Your task to perform on an android device: Go to ESPN.com Image 0: 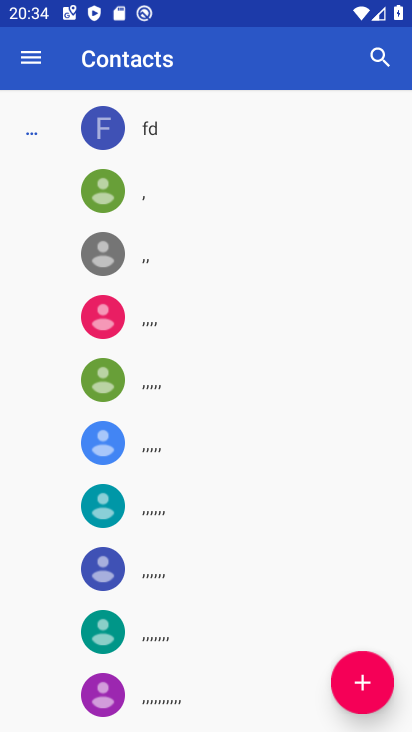
Step 0: press home button
Your task to perform on an android device: Go to ESPN.com Image 1: 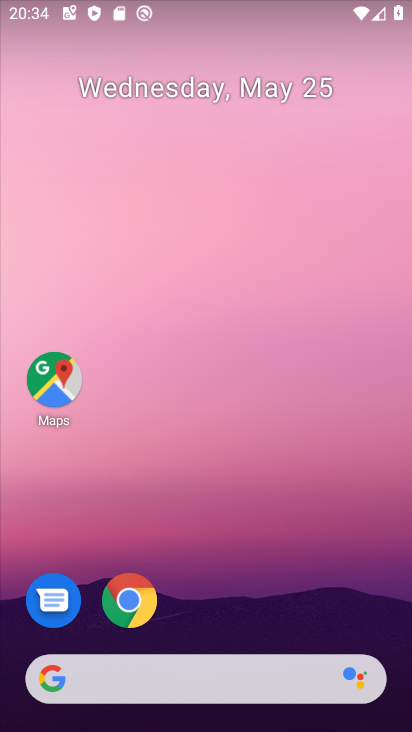
Step 1: drag from (336, 560) to (305, 202)
Your task to perform on an android device: Go to ESPN.com Image 2: 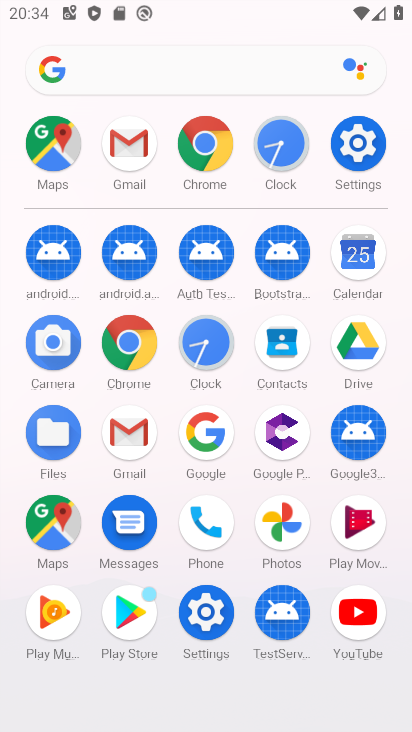
Step 2: click (208, 207)
Your task to perform on an android device: Go to ESPN.com Image 3: 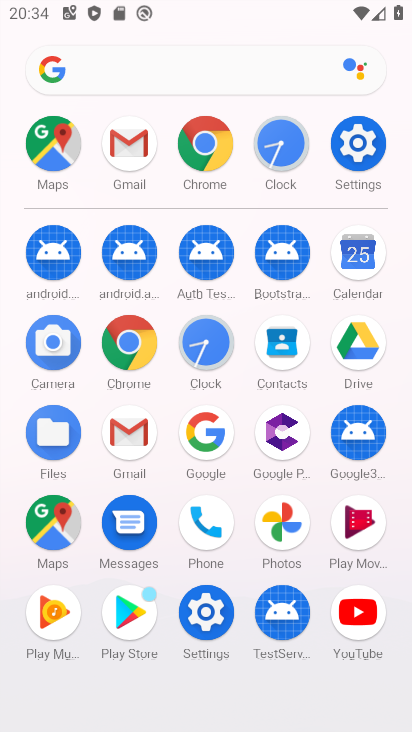
Step 3: click (208, 181)
Your task to perform on an android device: Go to ESPN.com Image 4: 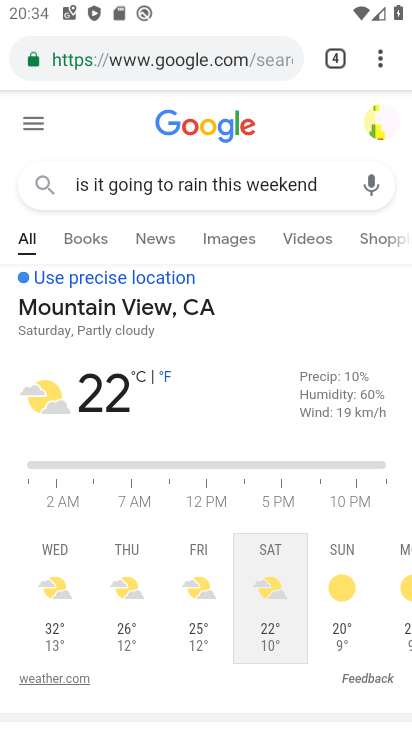
Step 4: click (179, 64)
Your task to perform on an android device: Go to ESPN.com Image 5: 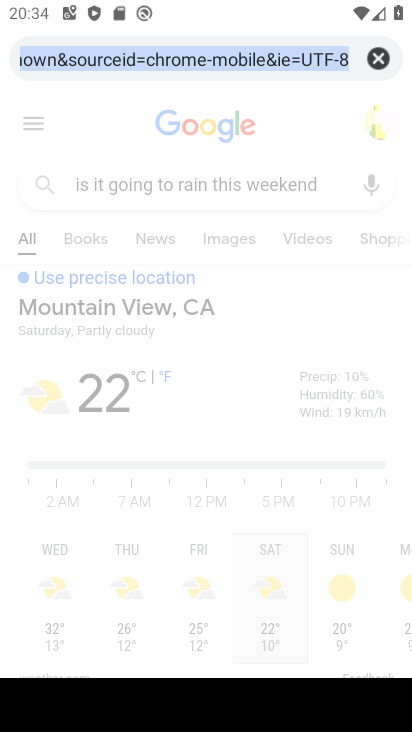
Step 5: click (382, 61)
Your task to perform on an android device: Go to ESPN.com Image 6: 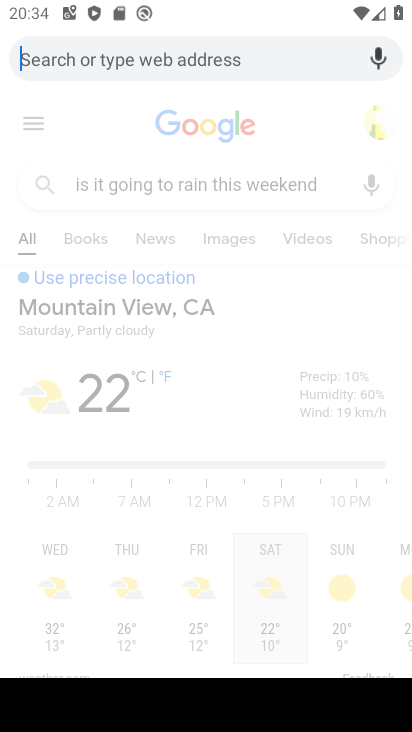
Step 6: type "espn.com"
Your task to perform on an android device: Go to ESPN.com Image 7: 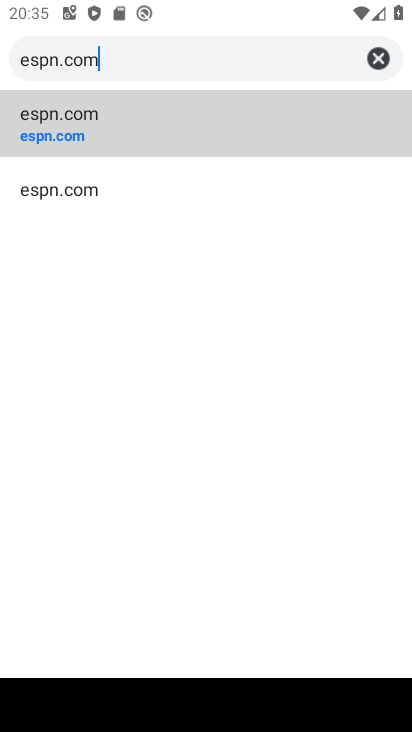
Step 7: click (93, 128)
Your task to perform on an android device: Go to ESPN.com Image 8: 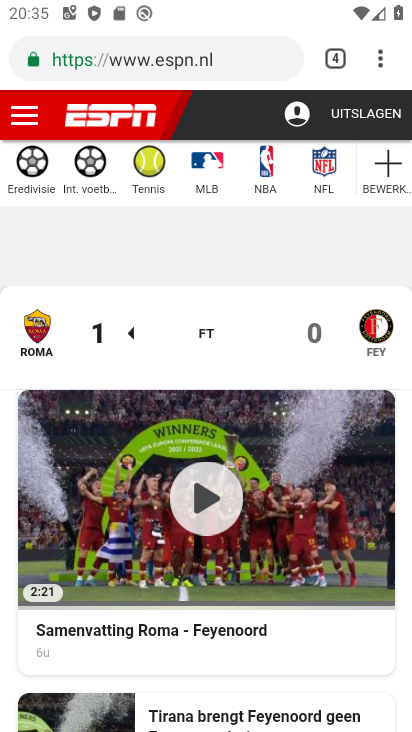
Step 8: task complete